Your task to perform on an android device: When is my next meeting? Image 0: 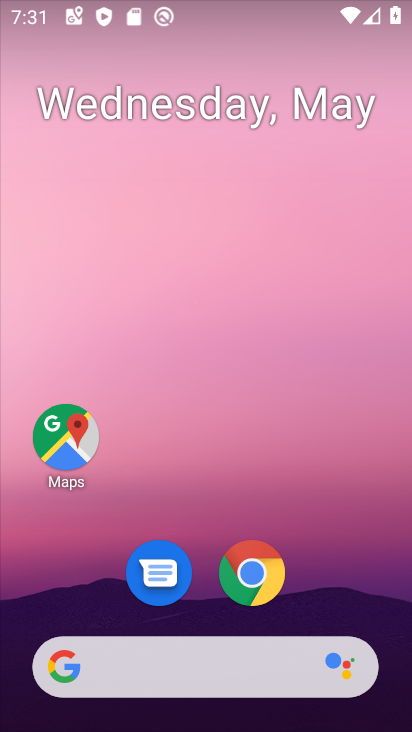
Step 0: drag from (316, 591) to (274, 158)
Your task to perform on an android device: When is my next meeting? Image 1: 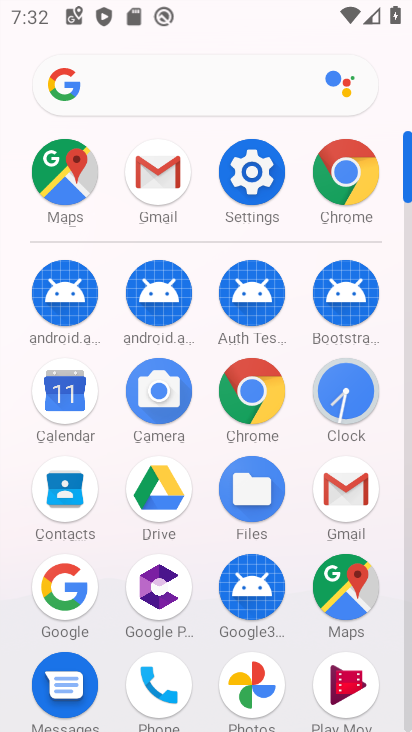
Step 1: click (69, 423)
Your task to perform on an android device: When is my next meeting? Image 2: 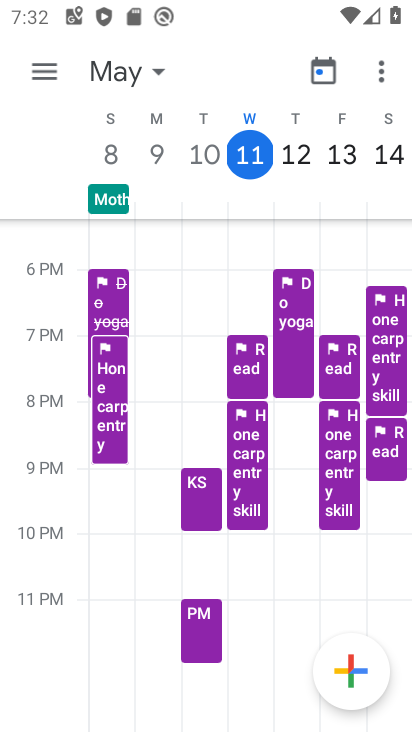
Step 2: click (51, 63)
Your task to perform on an android device: When is my next meeting? Image 3: 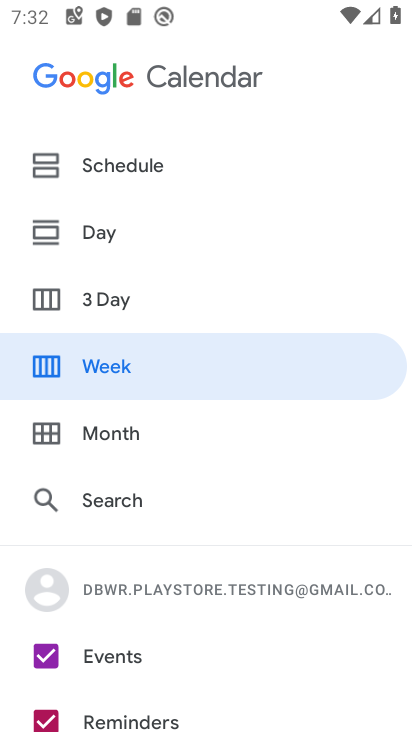
Step 3: click (116, 161)
Your task to perform on an android device: When is my next meeting? Image 4: 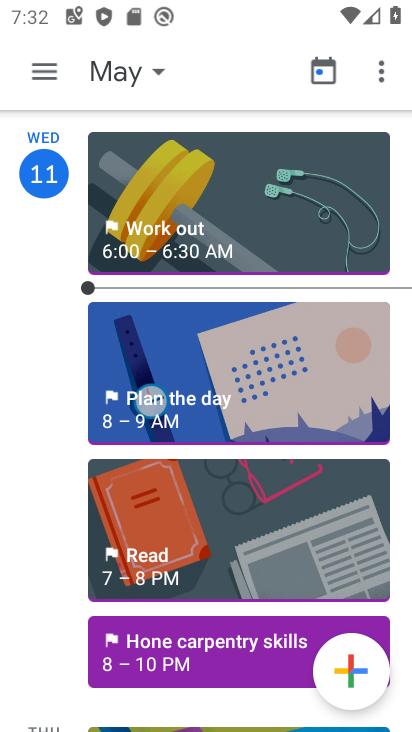
Step 4: click (114, 66)
Your task to perform on an android device: When is my next meeting? Image 5: 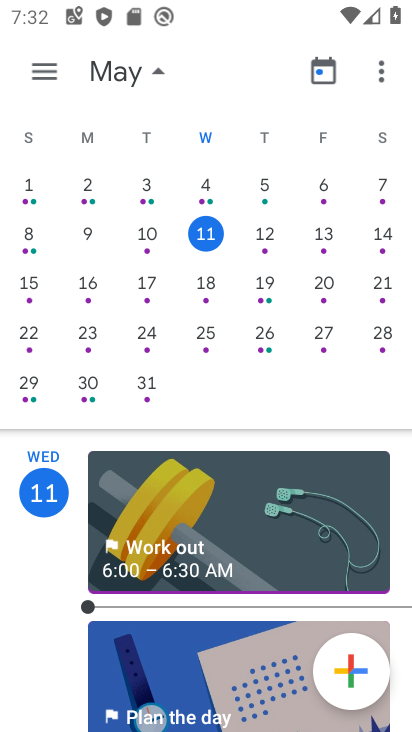
Step 5: click (114, 66)
Your task to perform on an android device: When is my next meeting? Image 6: 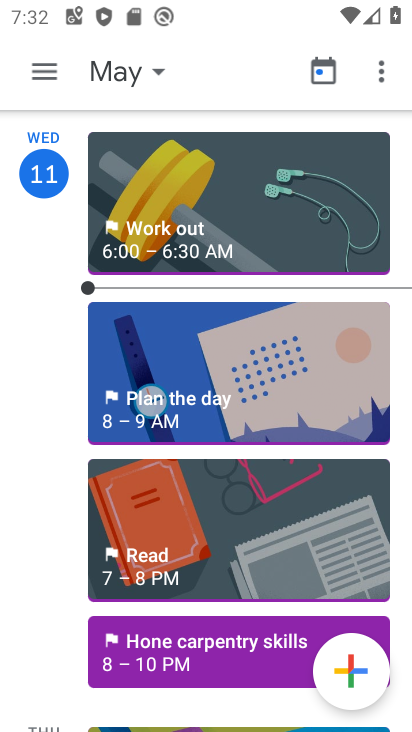
Step 6: task complete